Your task to perform on an android device: add a contact Image 0: 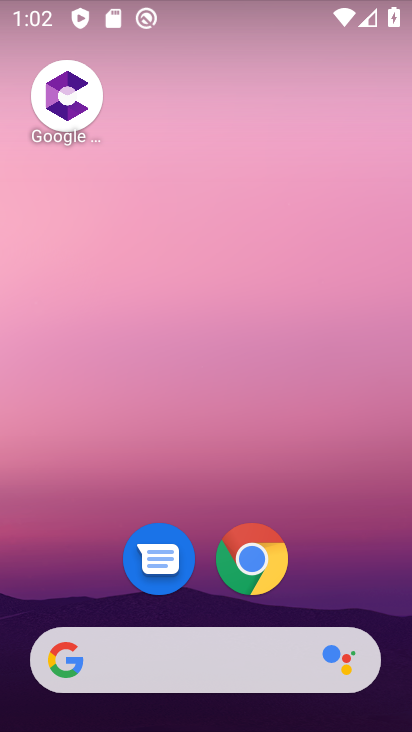
Step 0: drag from (193, 558) to (296, 50)
Your task to perform on an android device: add a contact Image 1: 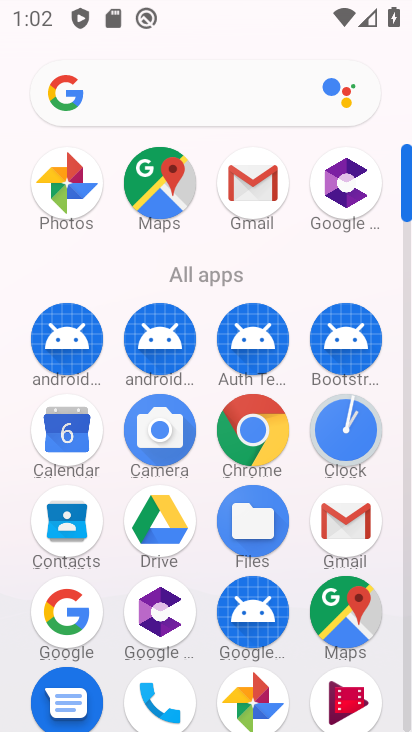
Step 1: click (66, 530)
Your task to perform on an android device: add a contact Image 2: 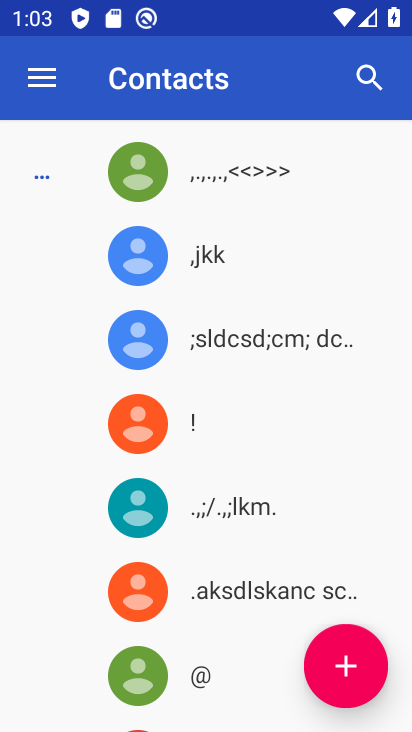
Step 2: click (350, 661)
Your task to perform on an android device: add a contact Image 3: 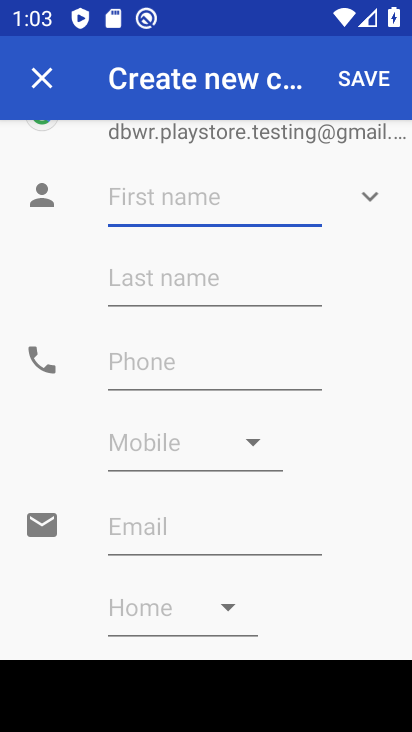
Step 3: type "vytrhg"
Your task to perform on an android device: add a contact Image 4: 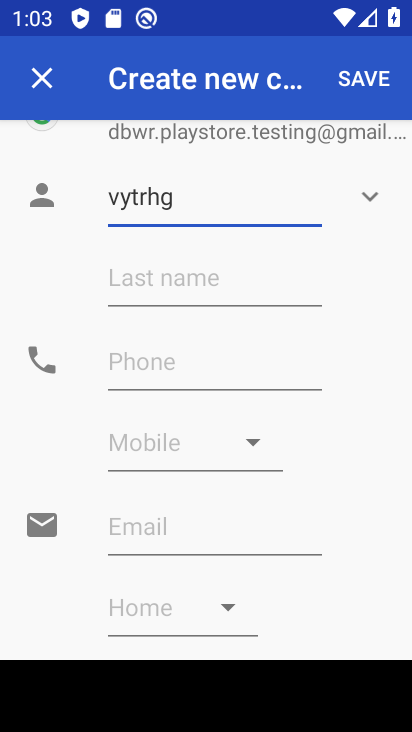
Step 4: click (141, 356)
Your task to perform on an android device: add a contact Image 5: 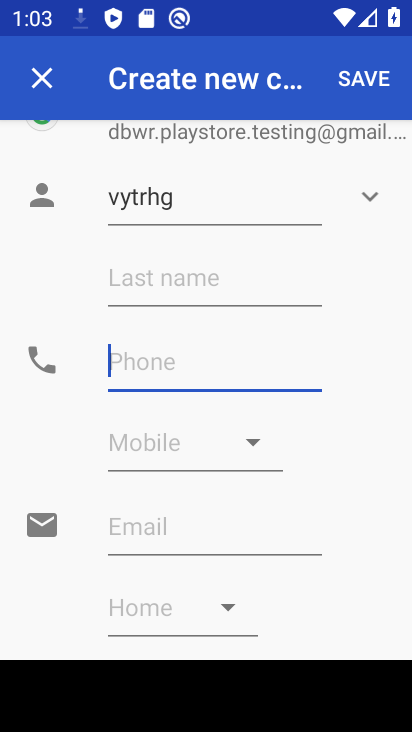
Step 5: type "85674876"
Your task to perform on an android device: add a contact Image 6: 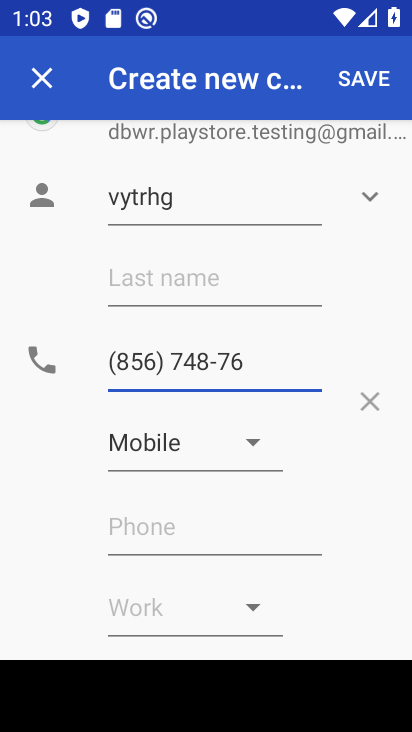
Step 6: click (374, 75)
Your task to perform on an android device: add a contact Image 7: 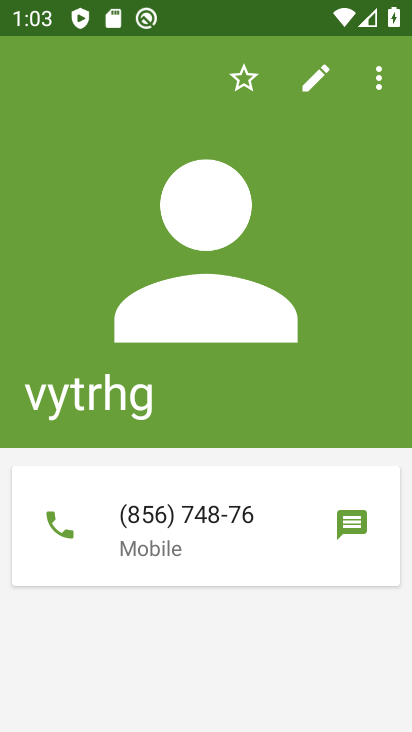
Step 7: task complete